Your task to perform on an android device: Check the news Image 0: 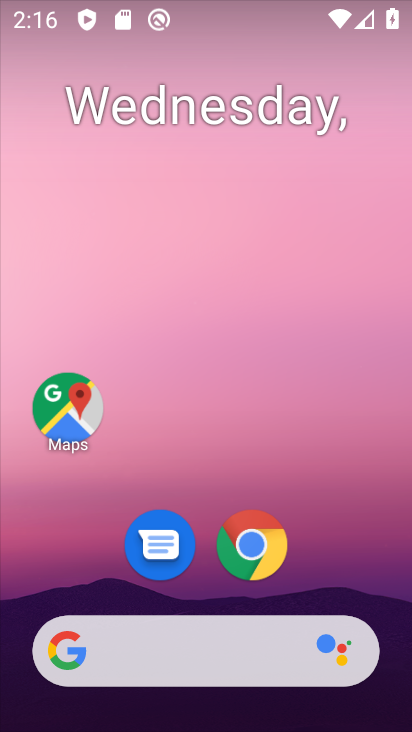
Step 0: click (245, 440)
Your task to perform on an android device: Check the news Image 1: 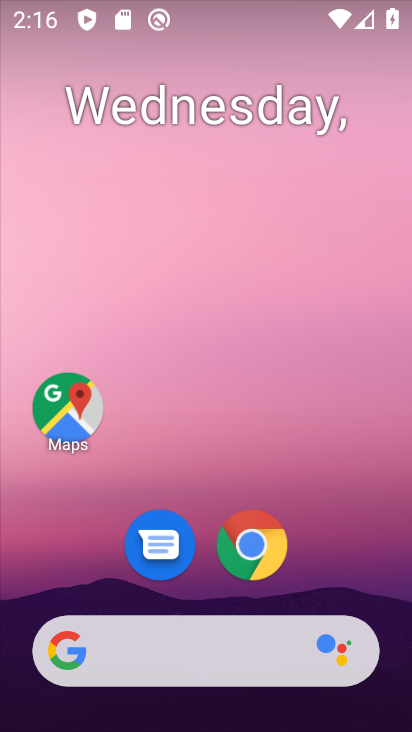
Step 1: click (240, 652)
Your task to perform on an android device: Check the news Image 2: 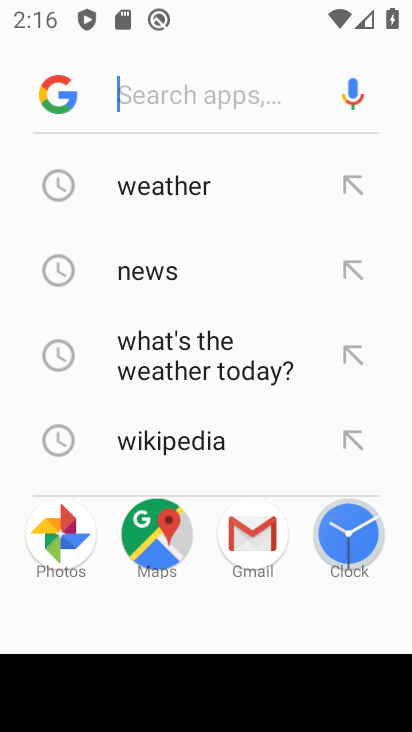
Step 2: click (104, 246)
Your task to perform on an android device: Check the news Image 3: 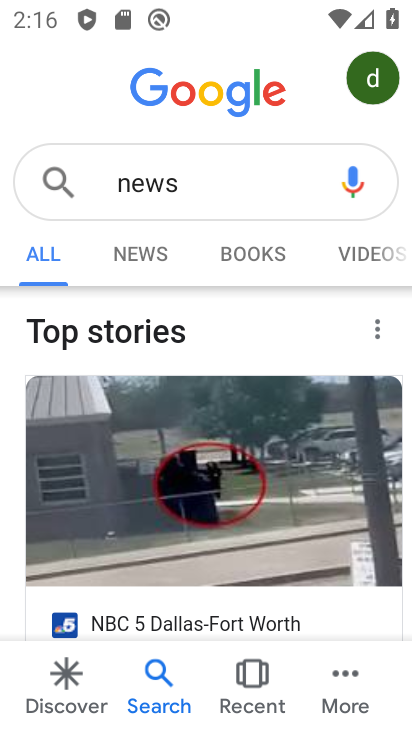
Step 3: task complete